Your task to perform on an android device: find which apps use the phone's location Image 0: 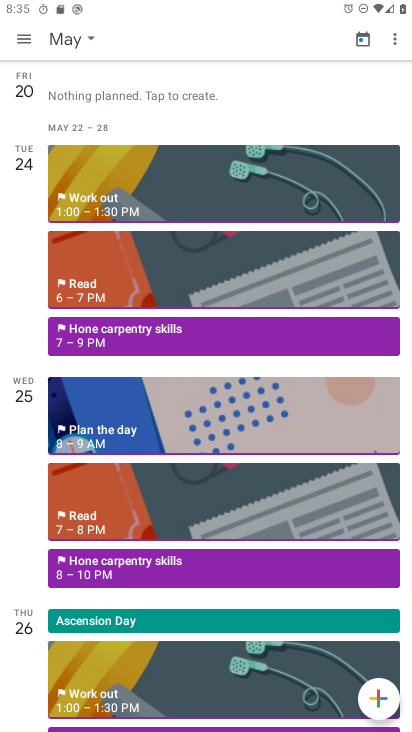
Step 0: press home button
Your task to perform on an android device: find which apps use the phone's location Image 1: 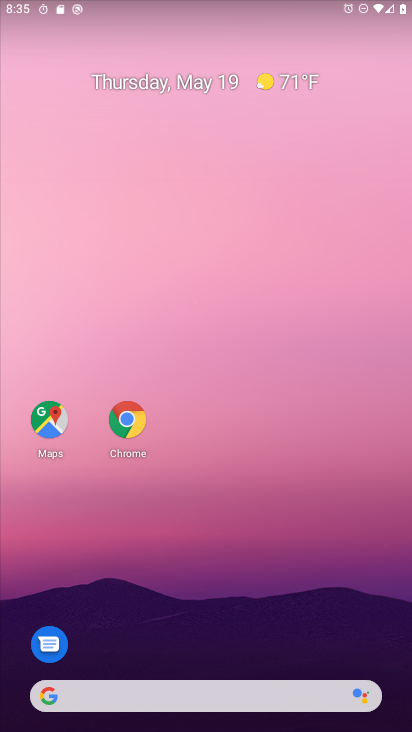
Step 1: drag from (280, 502) to (323, 204)
Your task to perform on an android device: find which apps use the phone's location Image 2: 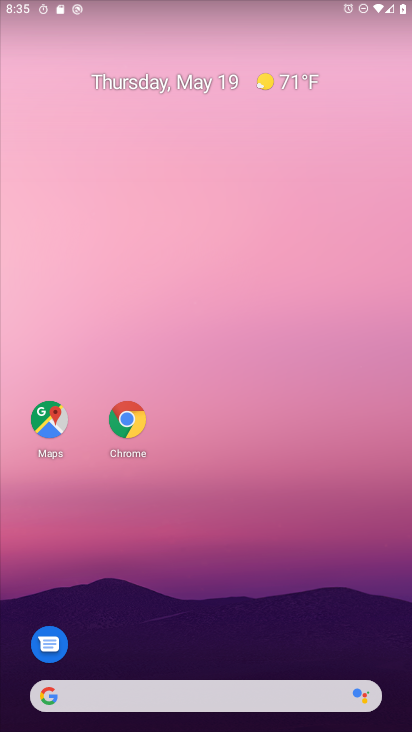
Step 2: click (253, 234)
Your task to perform on an android device: find which apps use the phone's location Image 3: 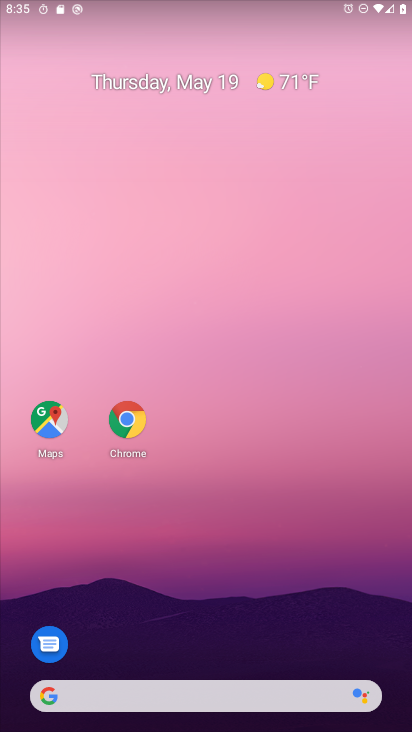
Step 3: drag from (184, 510) to (190, 276)
Your task to perform on an android device: find which apps use the phone's location Image 4: 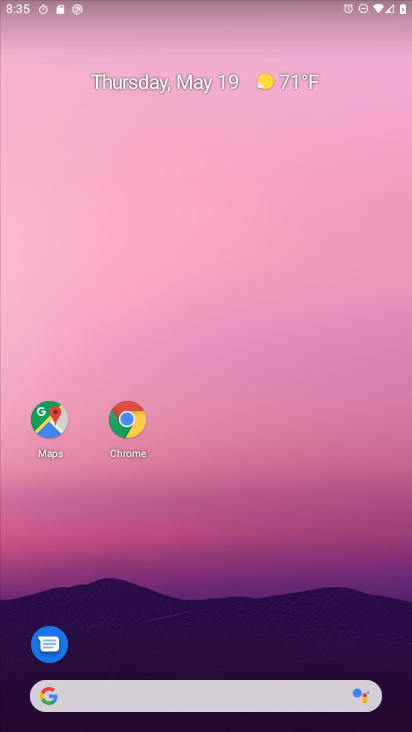
Step 4: drag from (226, 673) to (281, 107)
Your task to perform on an android device: find which apps use the phone's location Image 5: 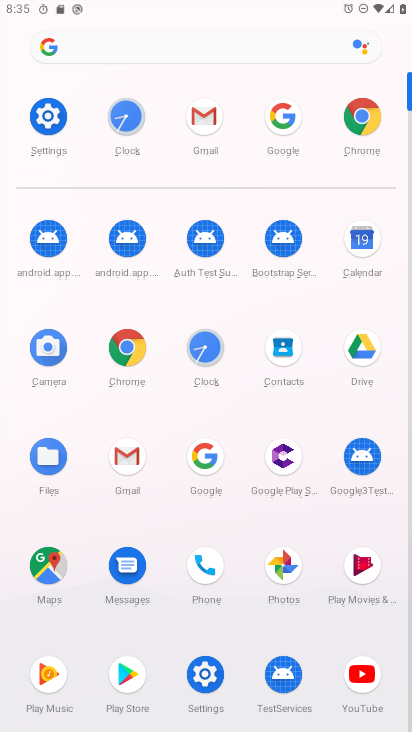
Step 5: click (31, 103)
Your task to perform on an android device: find which apps use the phone's location Image 6: 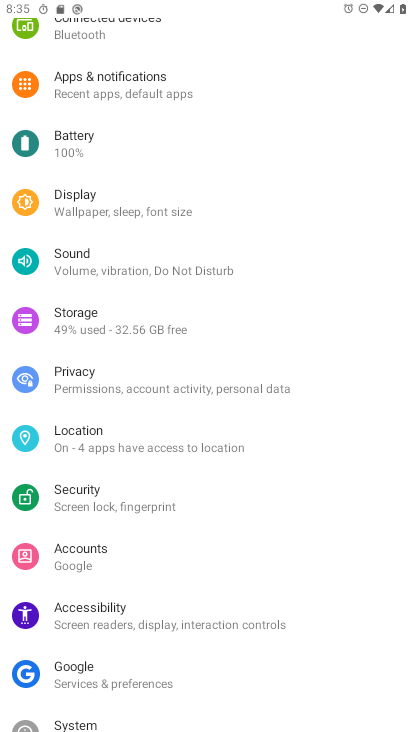
Step 6: click (102, 445)
Your task to perform on an android device: find which apps use the phone's location Image 7: 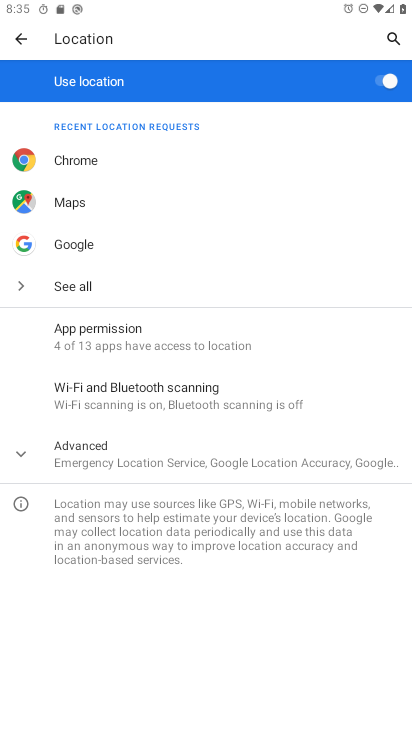
Step 7: click (173, 457)
Your task to perform on an android device: find which apps use the phone's location Image 8: 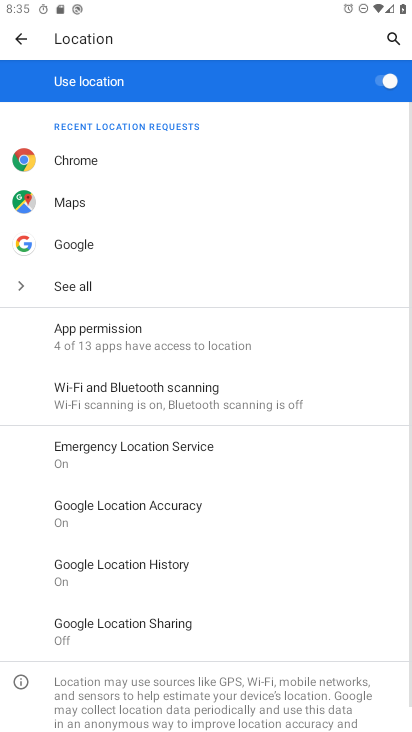
Step 8: drag from (207, 644) to (262, 286)
Your task to perform on an android device: find which apps use the phone's location Image 9: 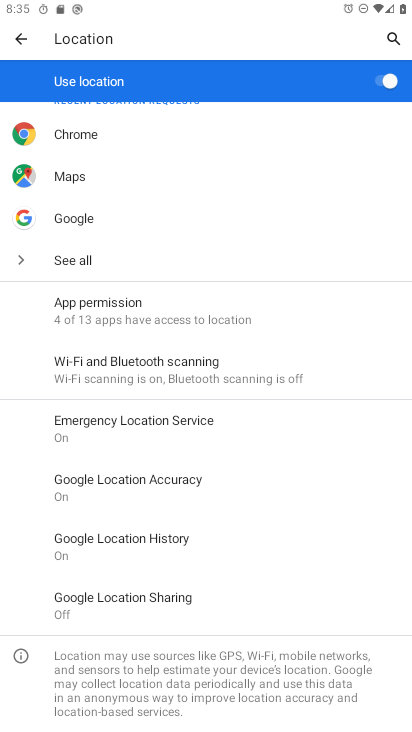
Step 9: click (132, 314)
Your task to perform on an android device: find which apps use the phone's location Image 10: 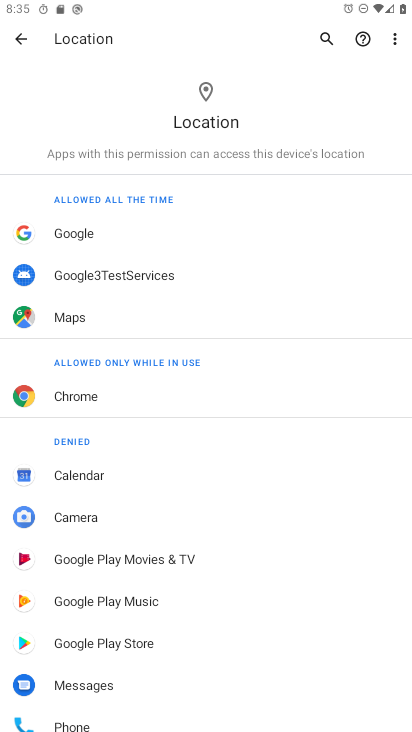
Step 10: task complete